Your task to perform on an android device: see sites visited before in the chrome app Image 0: 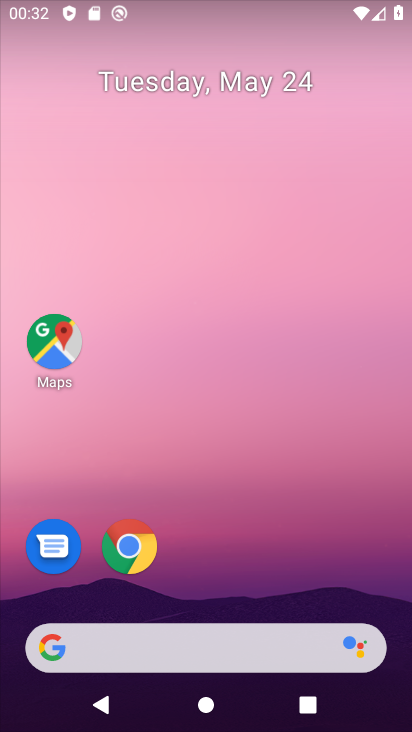
Step 0: drag from (262, 622) to (311, 2)
Your task to perform on an android device: see sites visited before in the chrome app Image 1: 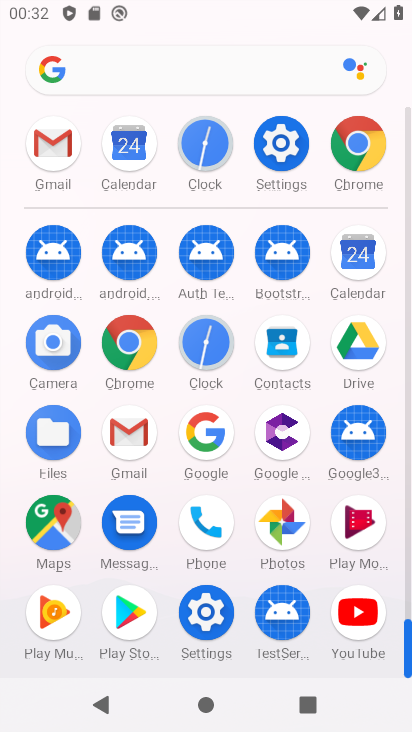
Step 1: click (144, 345)
Your task to perform on an android device: see sites visited before in the chrome app Image 2: 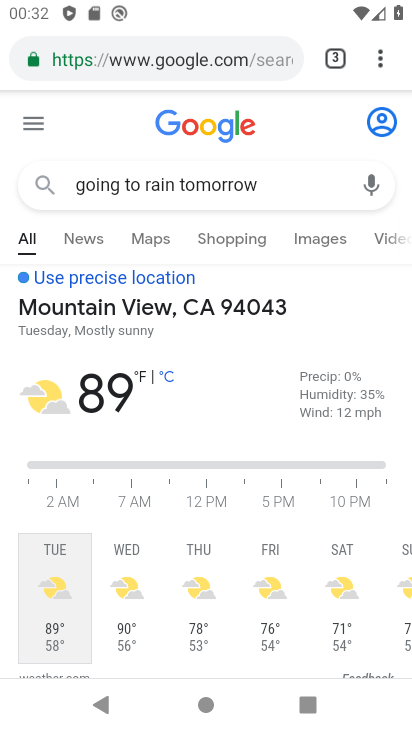
Step 2: click (379, 51)
Your task to perform on an android device: see sites visited before in the chrome app Image 3: 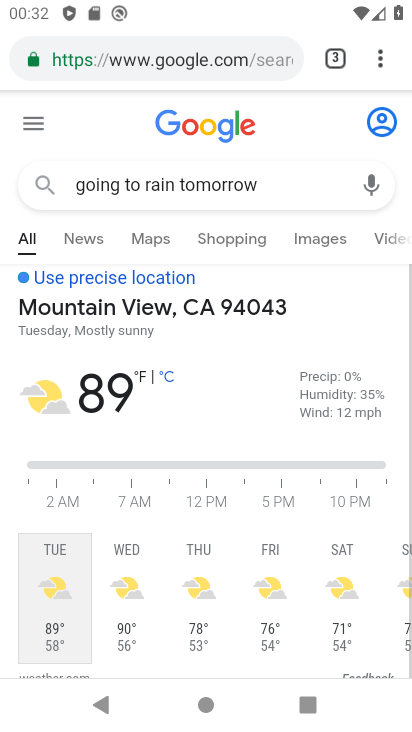
Step 3: task complete